Your task to perform on an android device: change the clock display to show seconds Image 0: 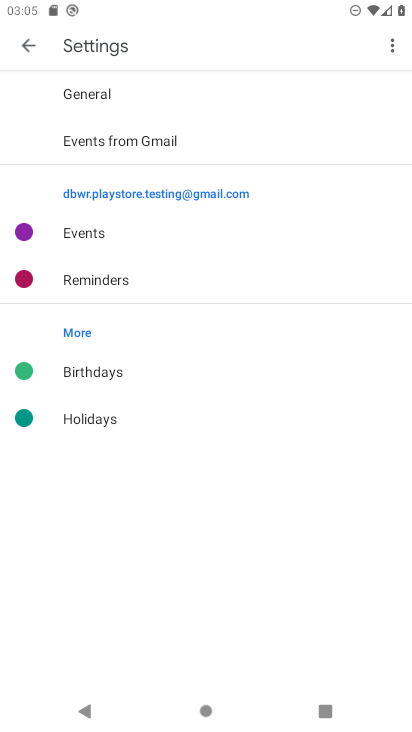
Step 0: press home button
Your task to perform on an android device: change the clock display to show seconds Image 1: 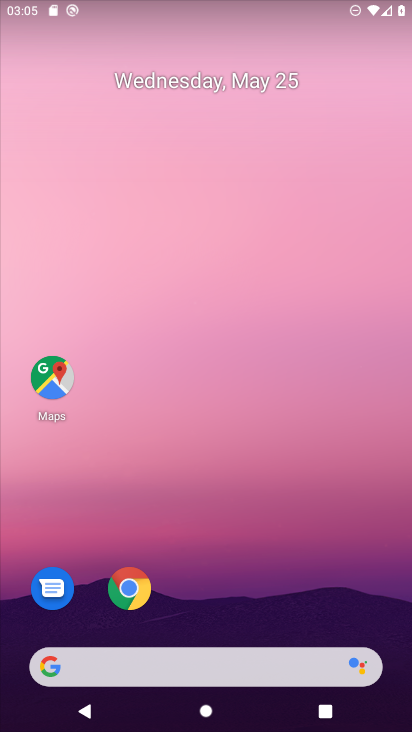
Step 1: drag from (344, 617) to (320, 214)
Your task to perform on an android device: change the clock display to show seconds Image 2: 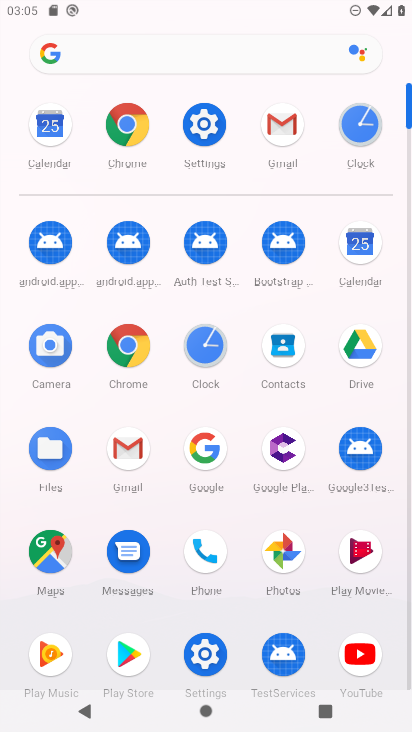
Step 2: click (367, 120)
Your task to perform on an android device: change the clock display to show seconds Image 3: 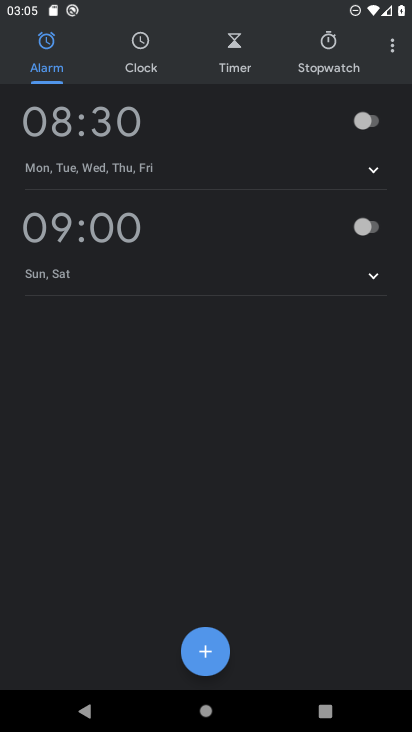
Step 3: click (403, 33)
Your task to perform on an android device: change the clock display to show seconds Image 4: 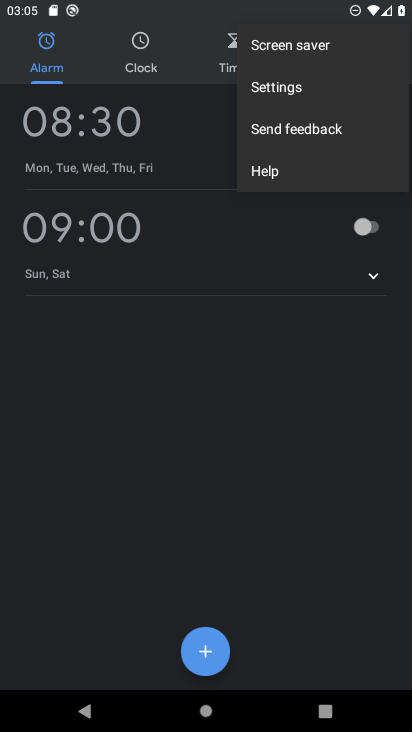
Step 4: click (324, 75)
Your task to perform on an android device: change the clock display to show seconds Image 5: 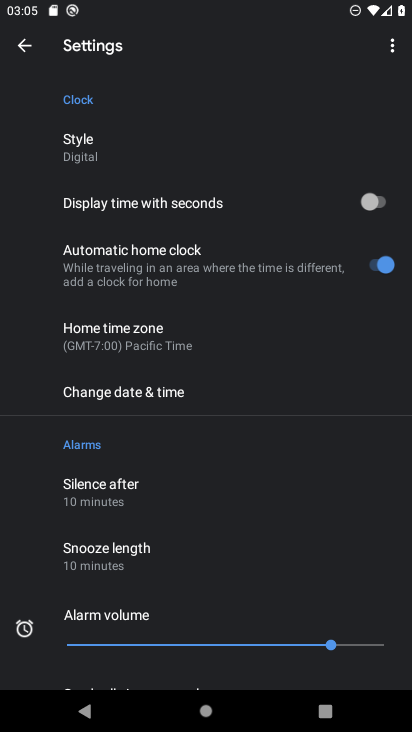
Step 5: click (194, 193)
Your task to perform on an android device: change the clock display to show seconds Image 6: 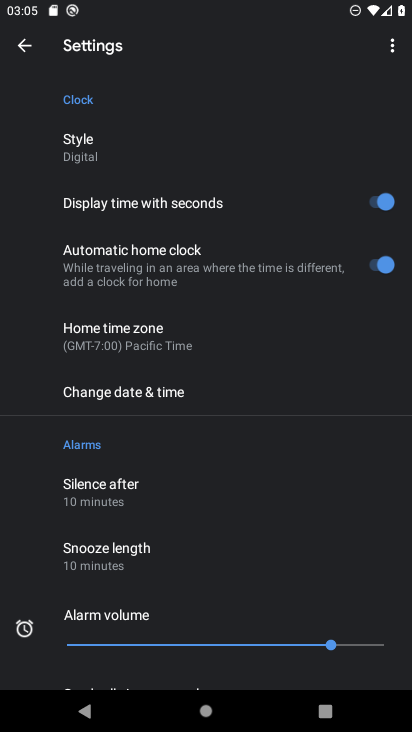
Step 6: task complete